Your task to perform on an android device: Search for vegetarian restaurants on Maps Image 0: 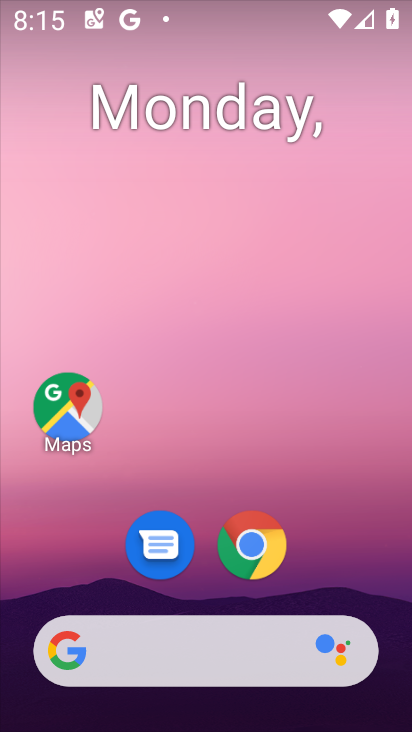
Step 0: press home button
Your task to perform on an android device: Search for vegetarian restaurants on Maps Image 1: 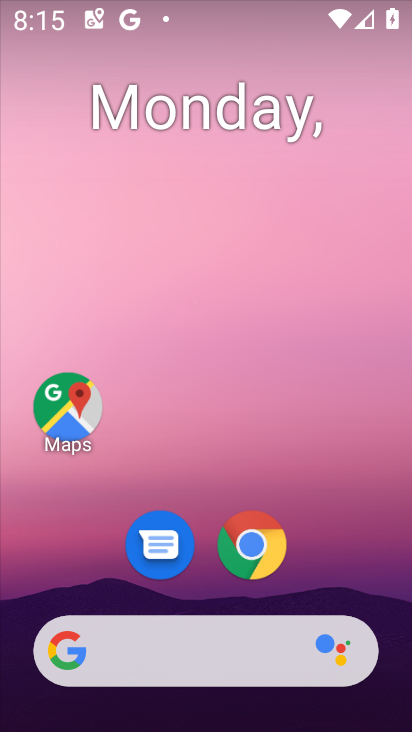
Step 1: click (71, 413)
Your task to perform on an android device: Search for vegetarian restaurants on Maps Image 2: 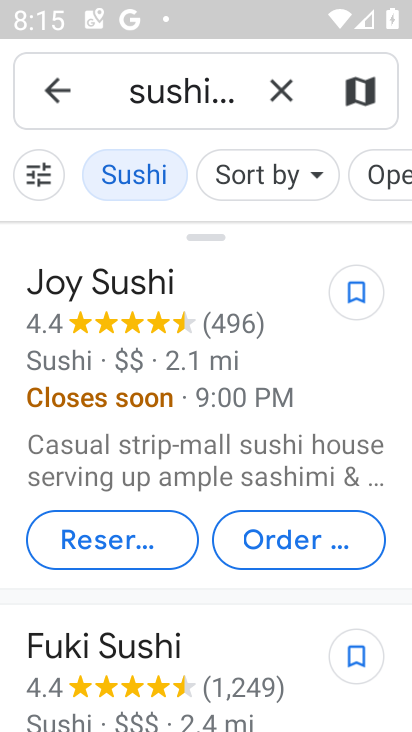
Step 2: click (277, 88)
Your task to perform on an android device: Search for vegetarian restaurants on Maps Image 3: 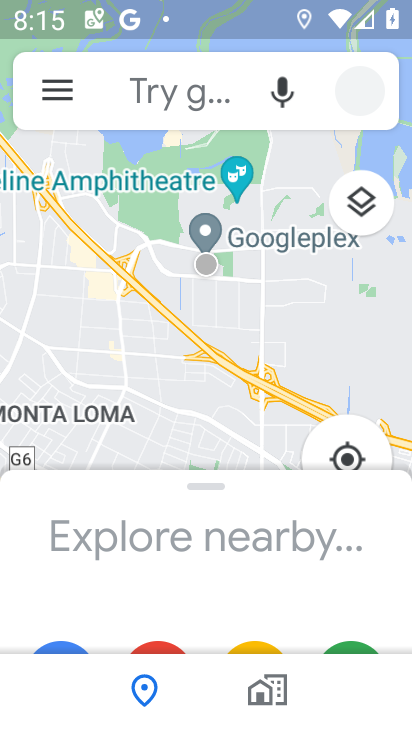
Step 3: click (164, 91)
Your task to perform on an android device: Search for vegetarian restaurants on Maps Image 4: 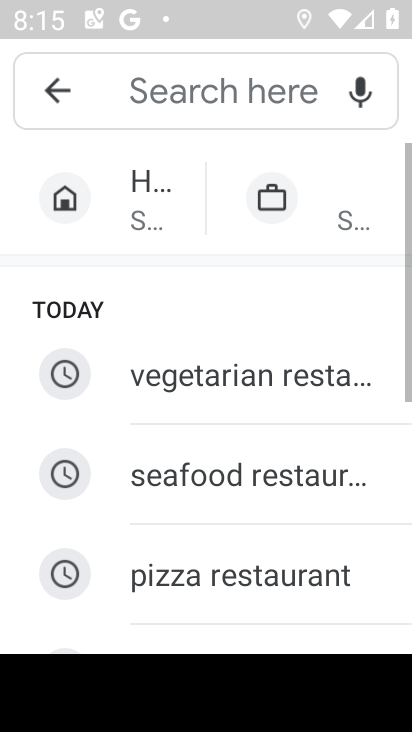
Step 4: click (236, 376)
Your task to perform on an android device: Search for vegetarian restaurants on Maps Image 5: 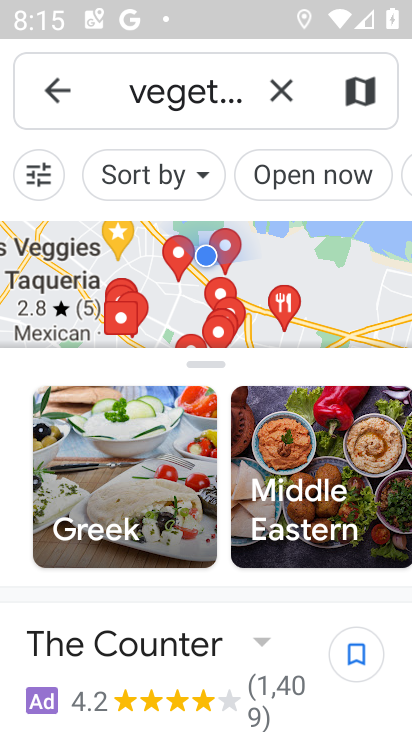
Step 5: task complete